Your task to perform on an android device: open a new tab in the chrome app Image 0: 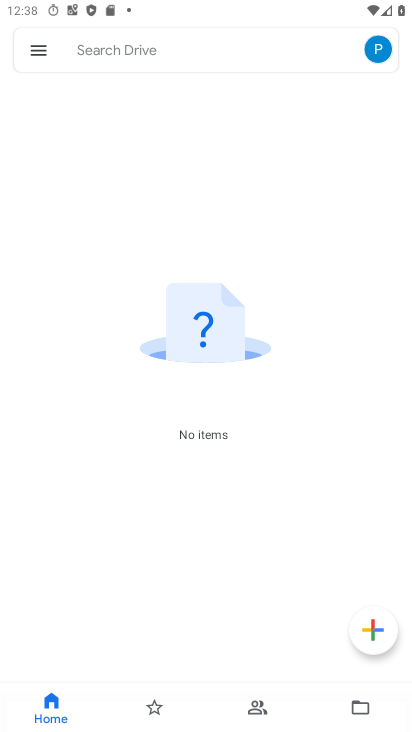
Step 0: press home button
Your task to perform on an android device: open a new tab in the chrome app Image 1: 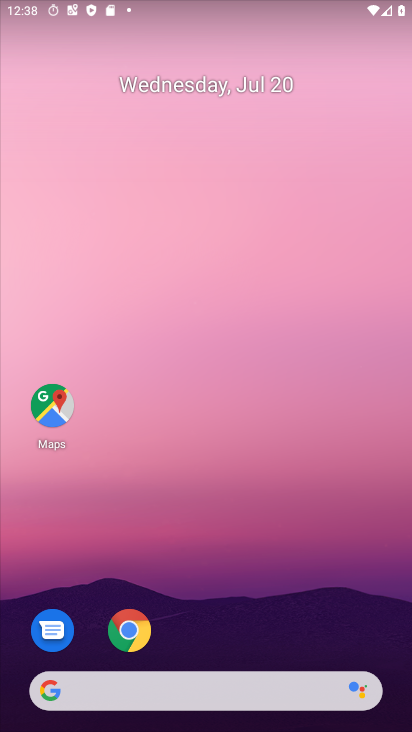
Step 1: click (138, 629)
Your task to perform on an android device: open a new tab in the chrome app Image 2: 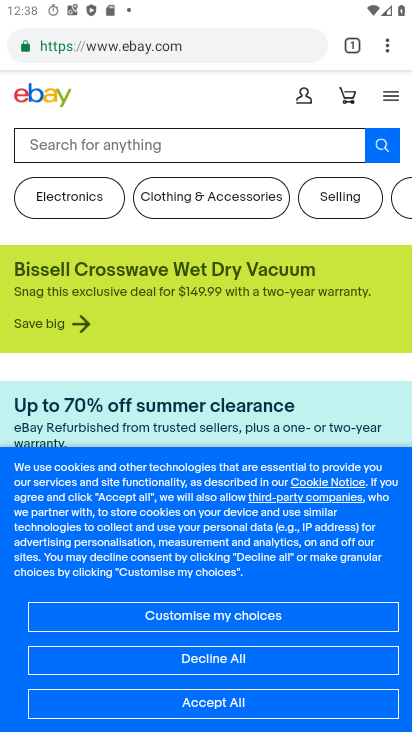
Step 2: click (388, 39)
Your task to perform on an android device: open a new tab in the chrome app Image 3: 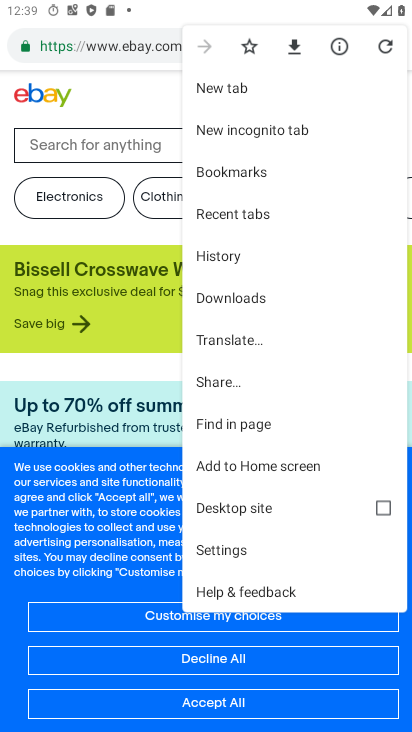
Step 3: click (261, 76)
Your task to perform on an android device: open a new tab in the chrome app Image 4: 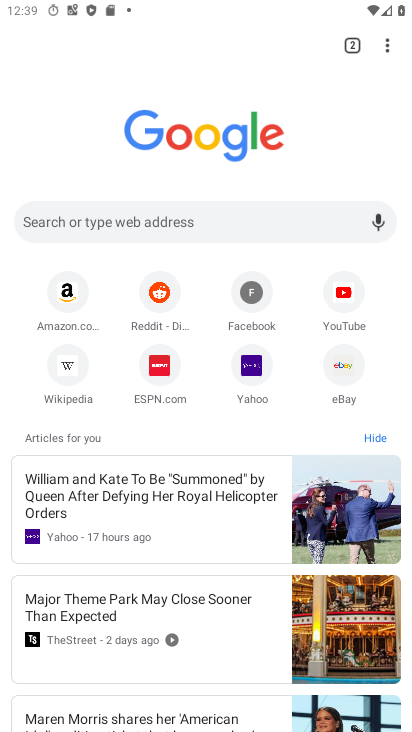
Step 4: task complete